Your task to perform on an android device: clear history in the chrome app Image 0: 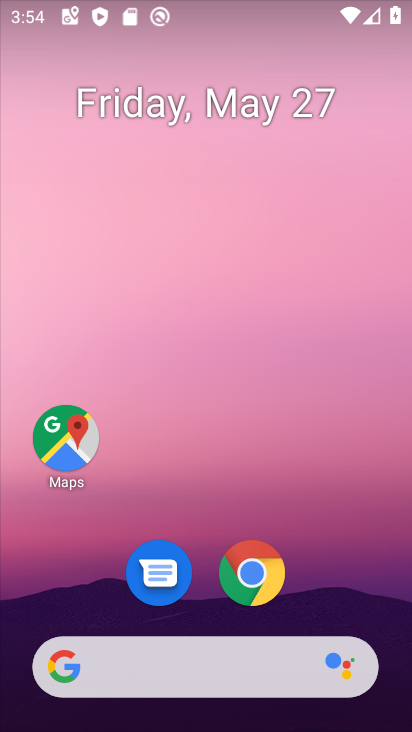
Step 0: click (261, 565)
Your task to perform on an android device: clear history in the chrome app Image 1: 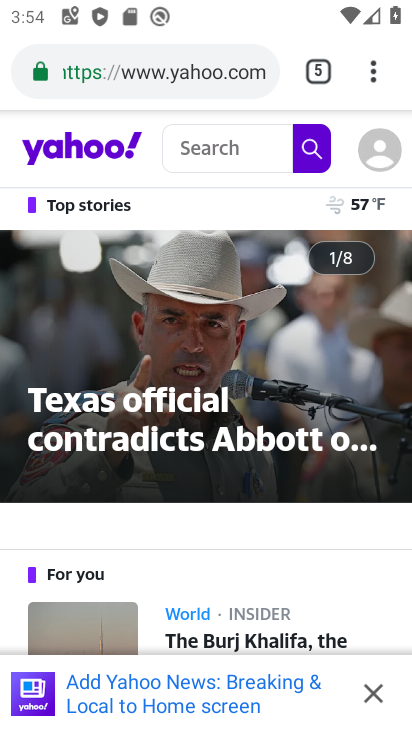
Step 1: click (375, 70)
Your task to perform on an android device: clear history in the chrome app Image 2: 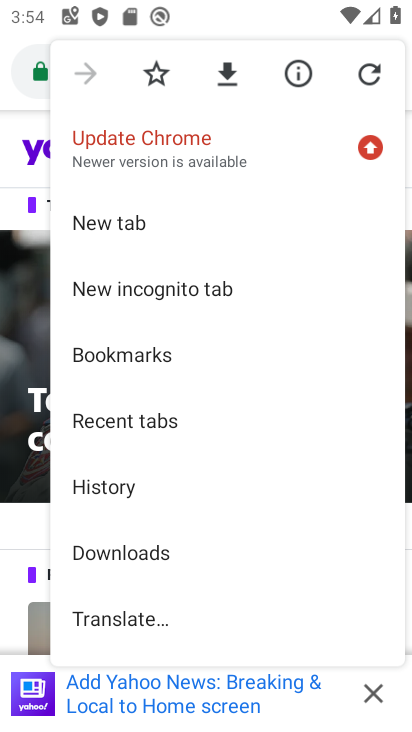
Step 2: click (116, 476)
Your task to perform on an android device: clear history in the chrome app Image 3: 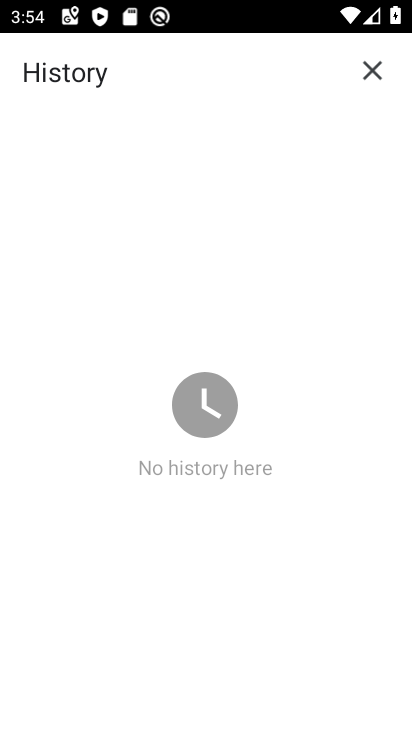
Step 3: task complete